Your task to perform on an android device: turn on notifications settings in the gmail app Image 0: 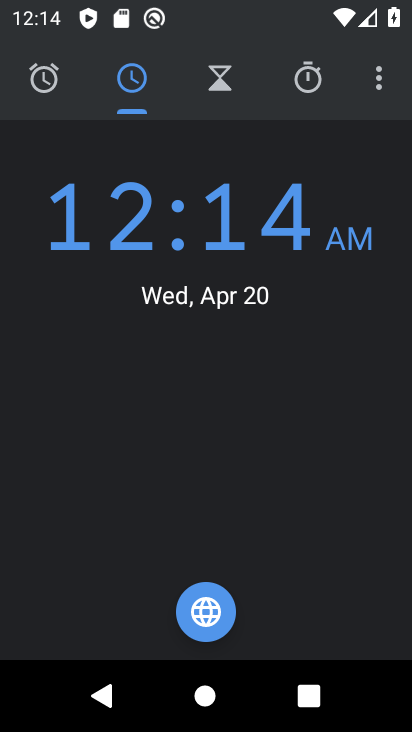
Step 0: press home button
Your task to perform on an android device: turn on notifications settings in the gmail app Image 1: 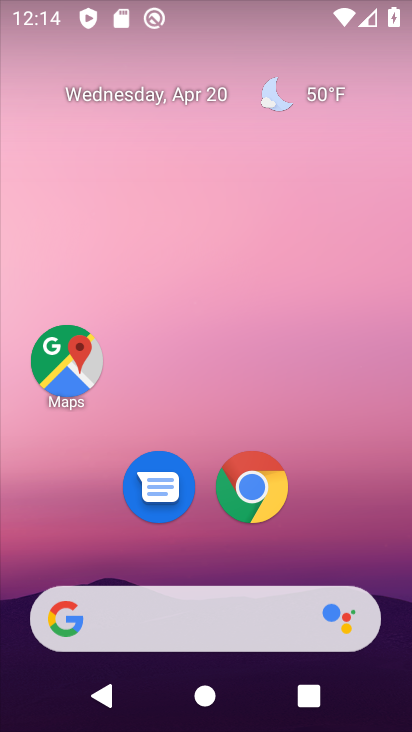
Step 1: drag from (344, 308) to (289, 83)
Your task to perform on an android device: turn on notifications settings in the gmail app Image 2: 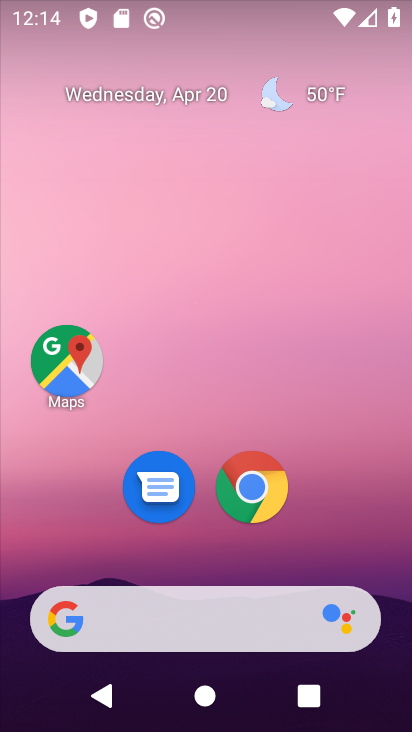
Step 2: drag from (361, 531) to (279, 213)
Your task to perform on an android device: turn on notifications settings in the gmail app Image 3: 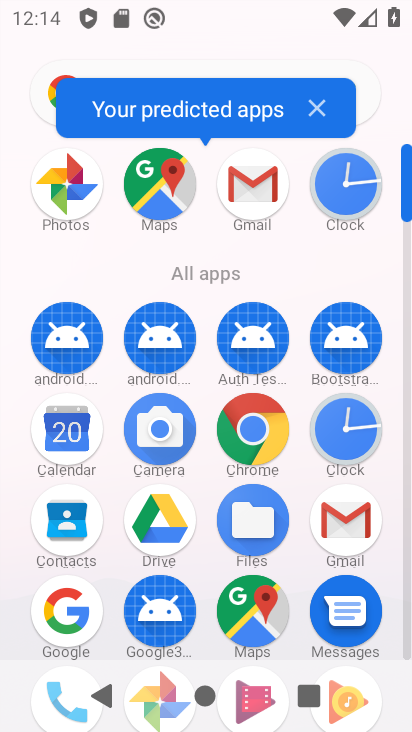
Step 3: click (338, 542)
Your task to perform on an android device: turn on notifications settings in the gmail app Image 4: 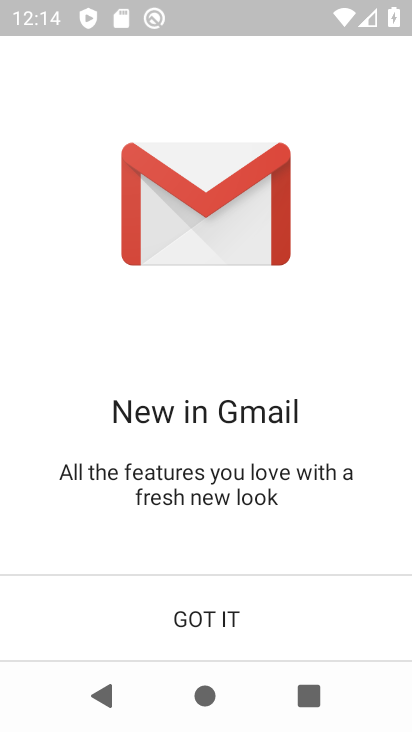
Step 4: click (207, 625)
Your task to perform on an android device: turn on notifications settings in the gmail app Image 5: 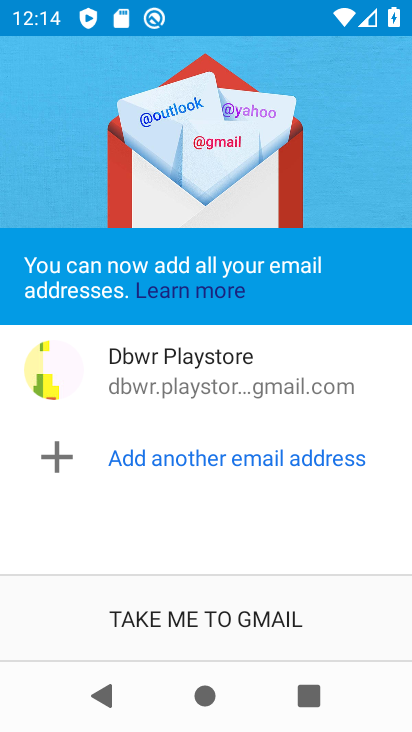
Step 5: click (207, 625)
Your task to perform on an android device: turn on notifications settings in the gmail app Image 6: 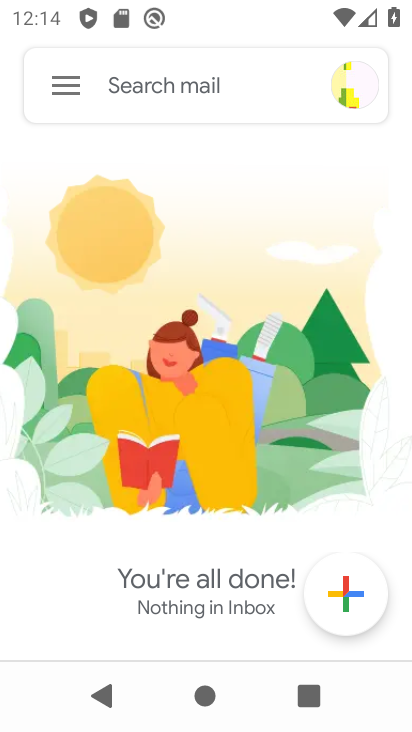
Step 6: click (67, 82)
Your task to perform on an android device: turn on notifications settings in the gmail app Image 7: 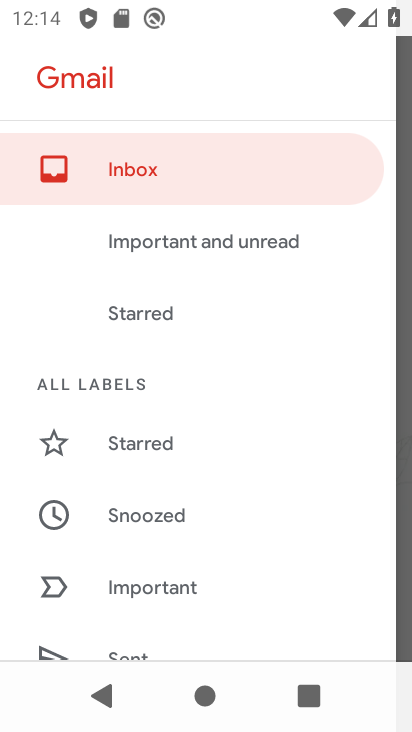
Step 7: drag from (310, 639) to (283, 162)
Your task to perform on an android device: turn on notifications settings in the gmail app Image 8: 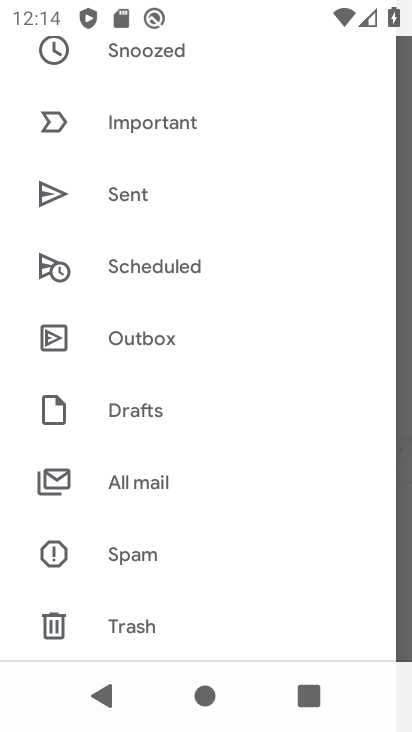
Step 8: drag from (312, 594) to (280, 93)
Your task to perform on an android device: turn on notifications settings in the gmail app Image 9: 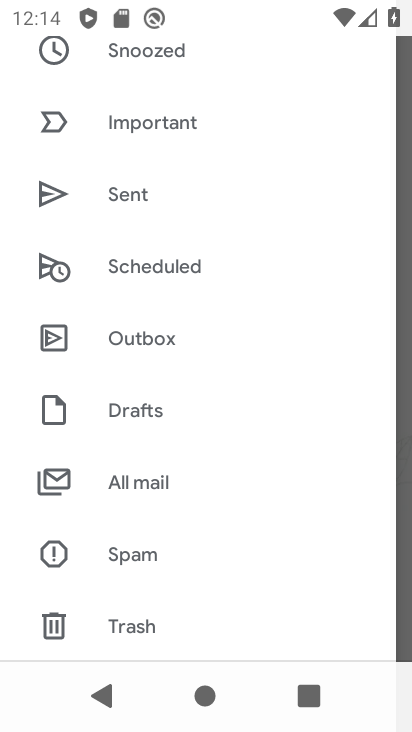
Step 9: drag from (249, 590) to (252, 152)
Your task to perform on an android device: turn on notifications settings in the gmail app Image 10: 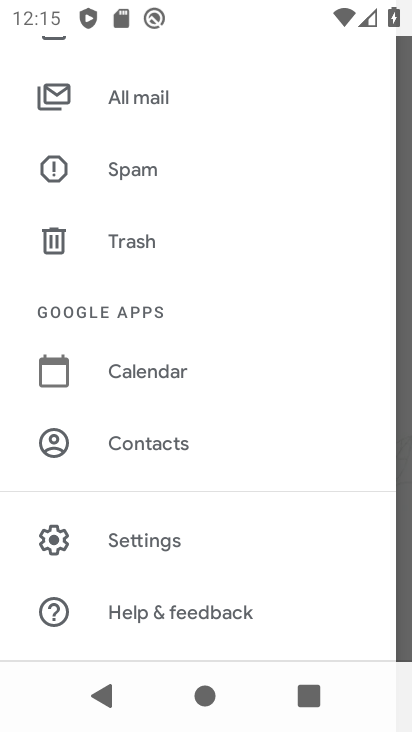
Step 10: click (289, 528)
Your task to perform on an android device: turn on notifications settings in the gmail app Image 11: 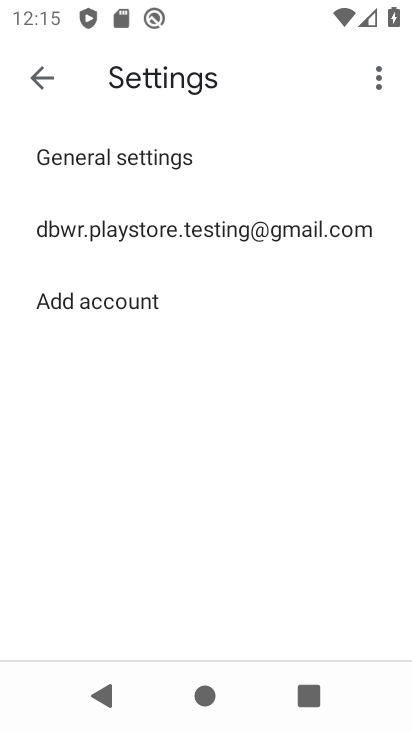
Step 11: click (307, 212)
Your task to perform on an android device: turn on notifications settings in the gmail app Image 12: 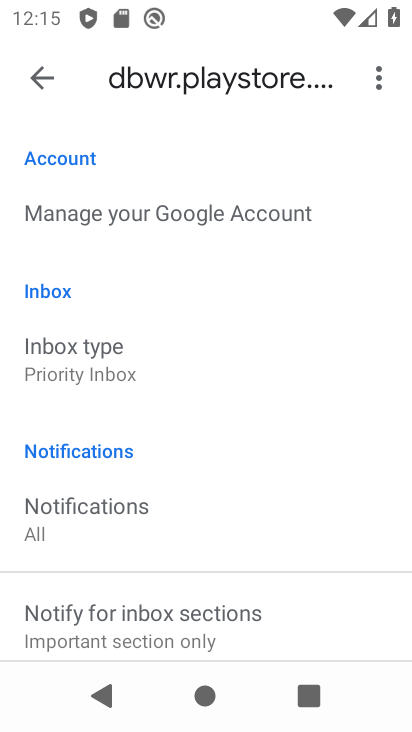
Step 12: drag from (283, 504) to (217, 128)
Your task to perform on an android device: turn on notifications settings in the gmail app Image 13: 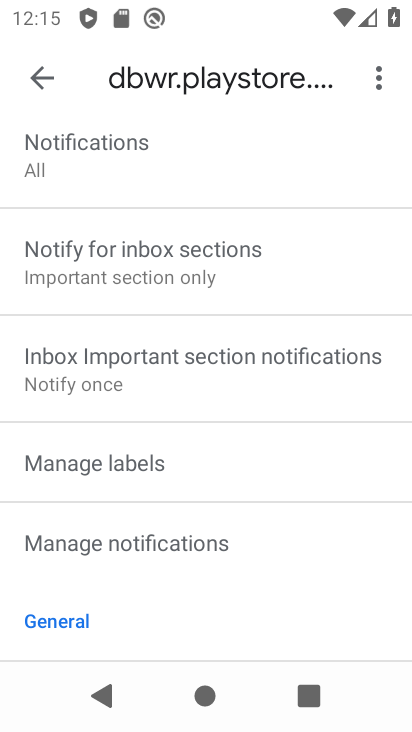
Step 13: click (228, 559)
Your task to perform on an android device: turn on notifications settings in the gmail app Image 14: 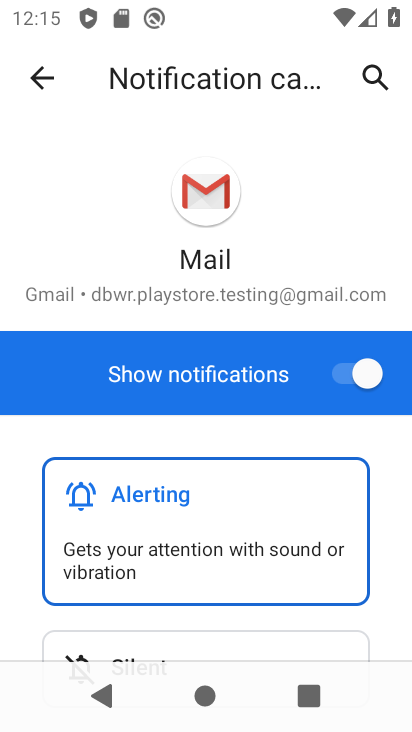
Step 14: drag from (391, 603) to (277, 96)
Your task to perform on an android device: turn on notifications settings in the gmail app Image 15: 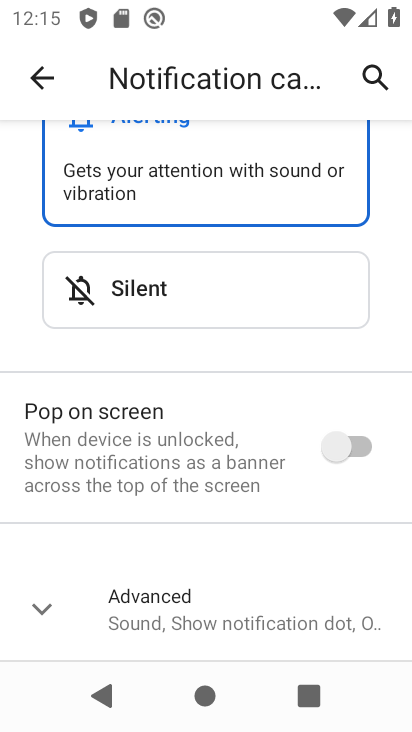
Step 15: click (362, 447)
Your task to perform on an android device: turn on notifications settings in the gmail app Image 16: 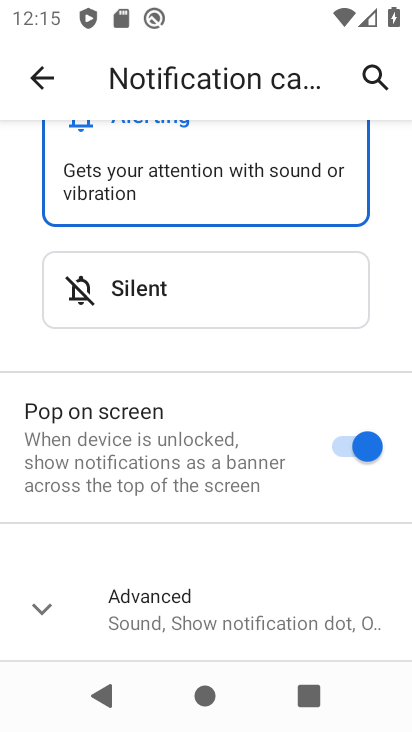
Step 16: task complete